Your task to perform on an android device: Toggle the flashlight Image 0: 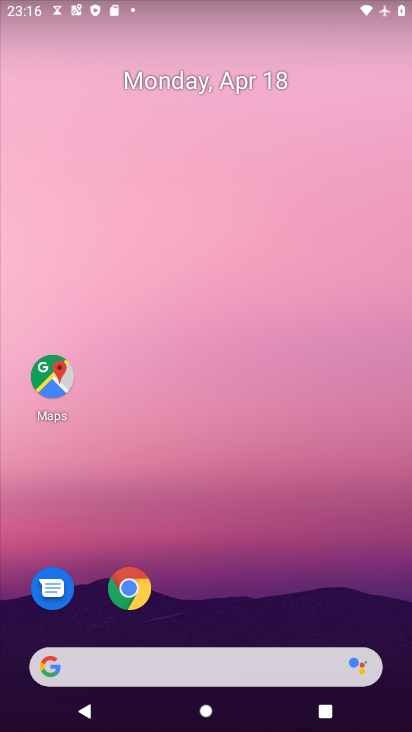
Step 0: drag from (273, 433) to (94, 8)
Your task to perform on an android device: Toggle the flashlight Image 1: 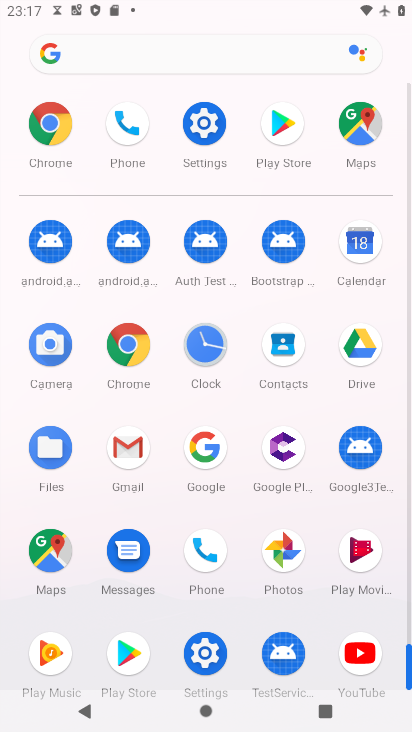
Step 1: click (201, 651)
Your task to perform on an android device: Toggle the flashlight Image 2: 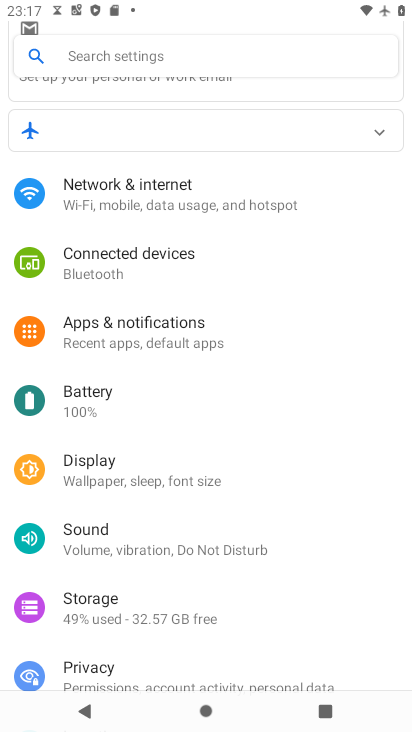
Step 2: click (232, 198)
Your task to perform on an android device: Toggle the flashlight Image 3: 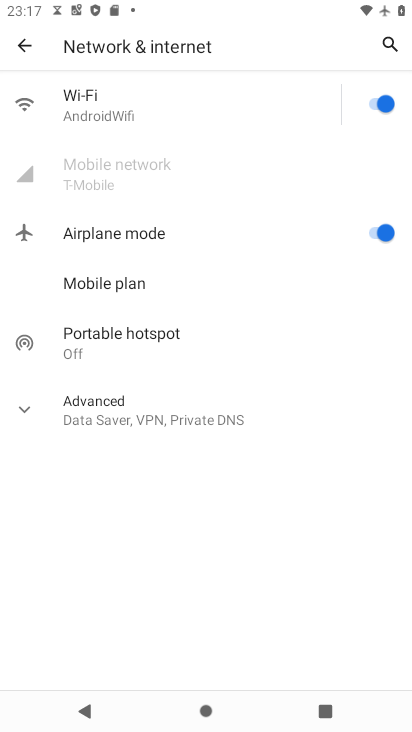
Step 3: click (35, 56)
Your task to perform on an android device: Toggle the flashlight Image 4: 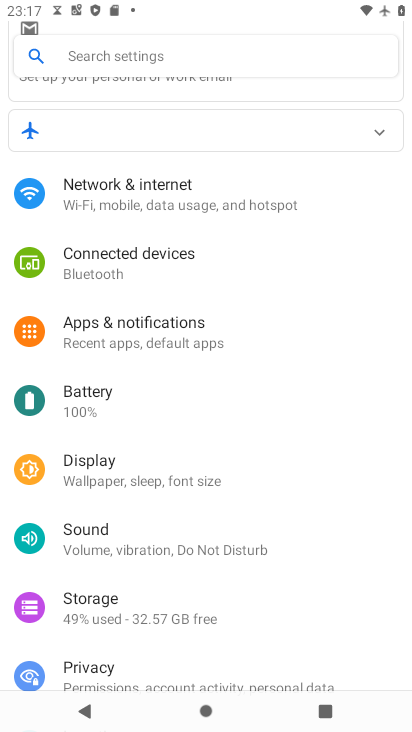
Step 4: click (171, 324)
Your task to perform on an android device: Toggle the flashlight Image 5: 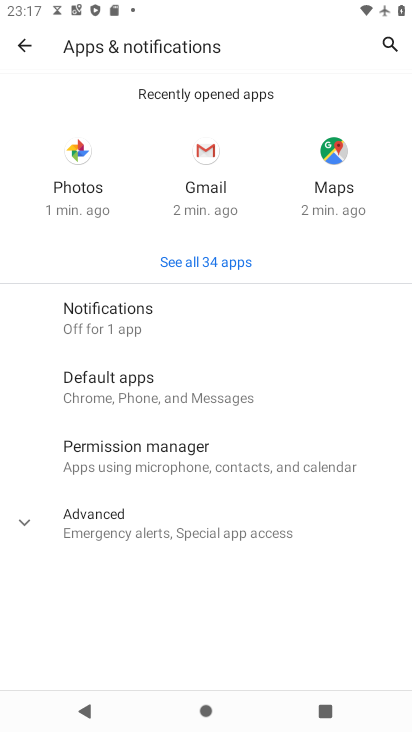
Step 5: click (26, 45)
Your task to perform on an android device: Toggle the flashlight Image 6: 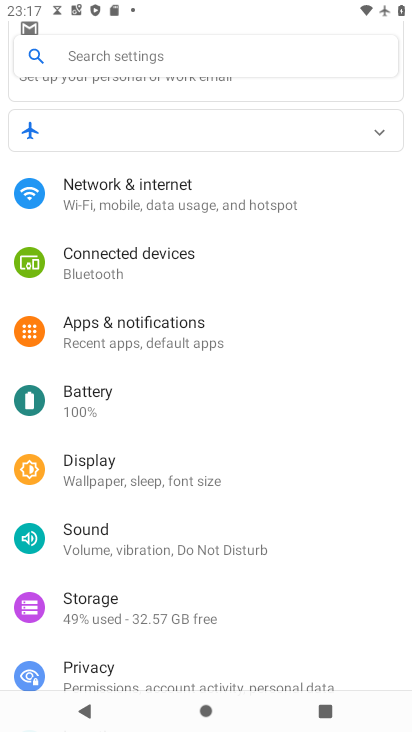
Step 6: task complete